Your task to perform on an android device: manage bookmarks in the chrome app Image 0: 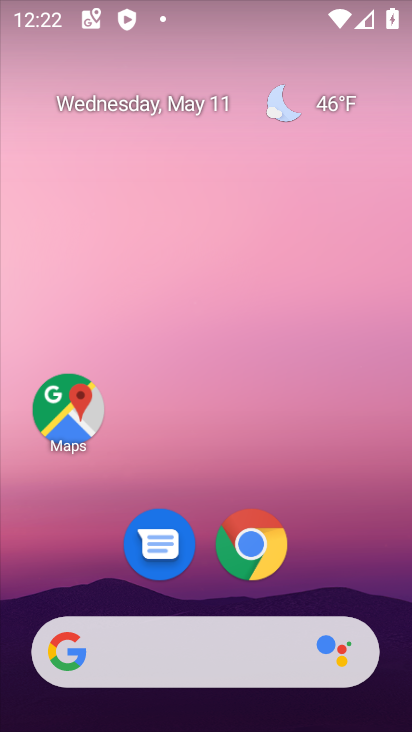
Step 0: click (255, 544)
Your task to perform on an android device: manage bookmarks in the chrome app Image 1: 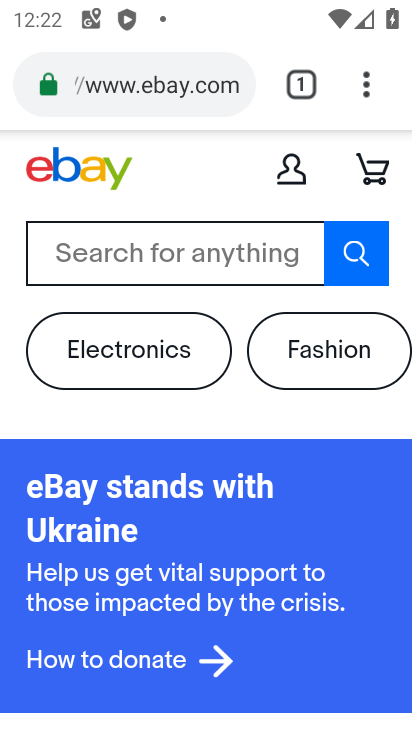
Step 1: click (362, 88)
Your task to perform on an android device: manage bookmarks in the chrome app Image 2: 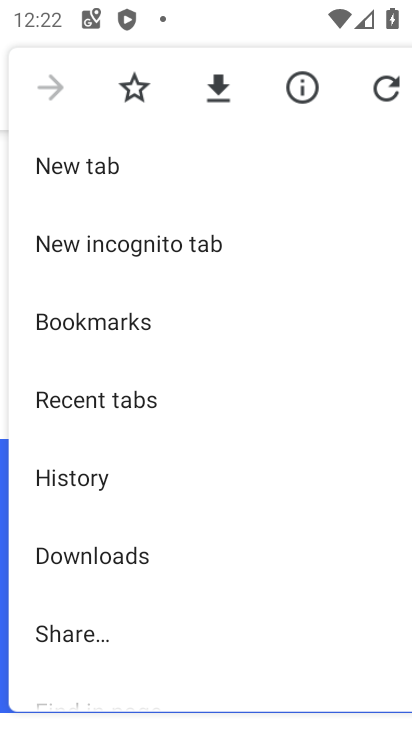
Step 2: click (88, 328)
Your task to perform on an android device: manage bookmarks in the chrome app Image 3: 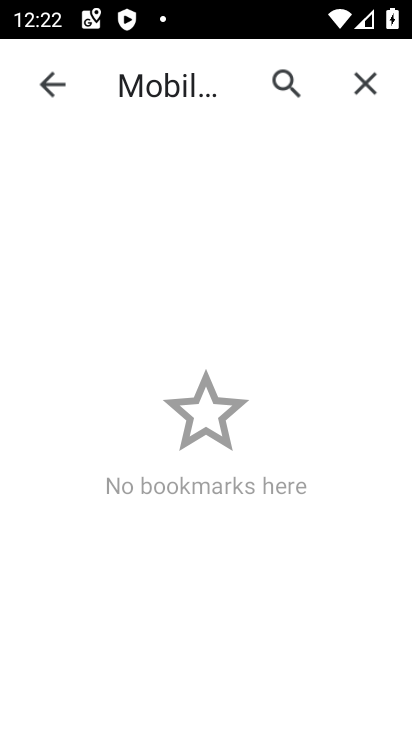
Step 3: task complete